Your task to perform on an android device: turn off location Image 0: 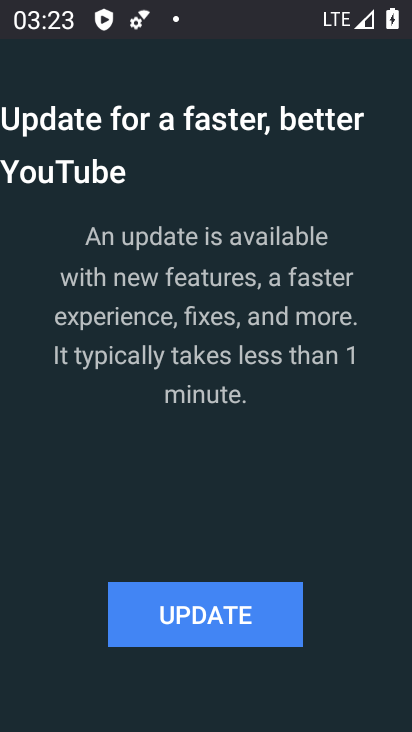
Step 0: press back button
Your task to perform on an android device: turn off location Image 1: 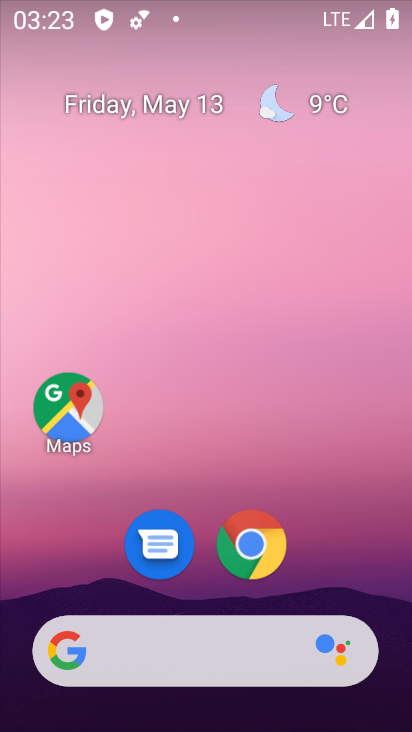
Step 1: drag from (316, 501) to (264, 42)
Your task to perform on an android device: turn off location Image 2: 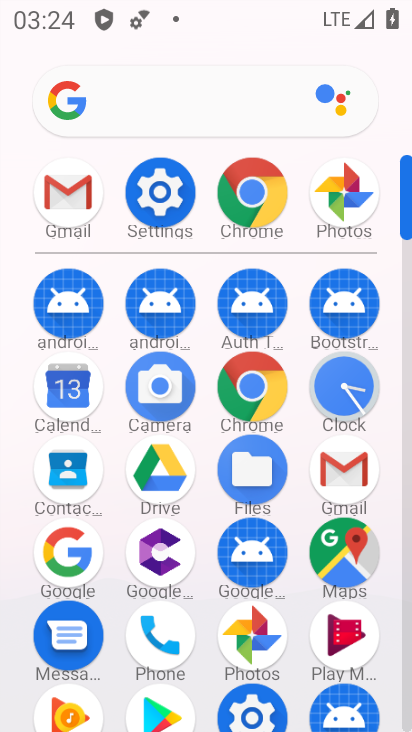
Step 2: click (157, 189)
Your task to perform on an android device: turn off location Image 3: 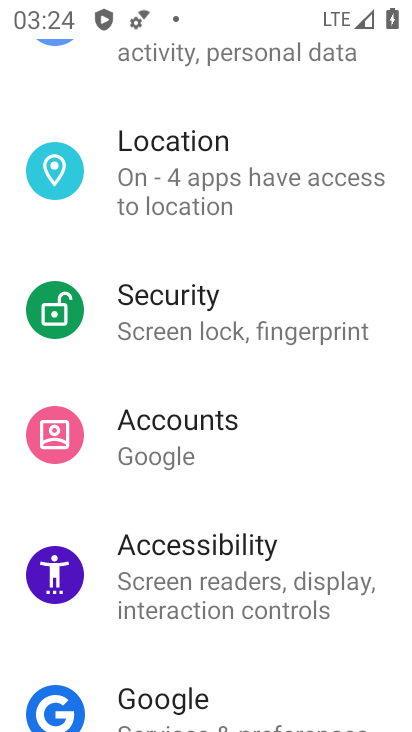
Step 3: click (255, 159)
Your task to perform on an android device: turn off location Image 4: 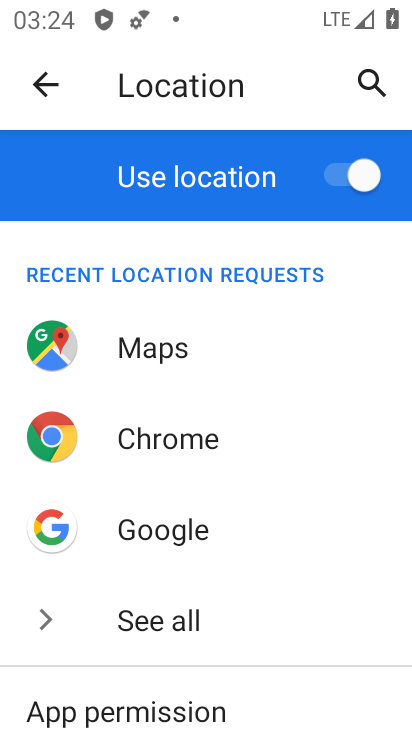
Step 4: click (342, 168)
Your task to perform on an android device: turn off location Image 5: 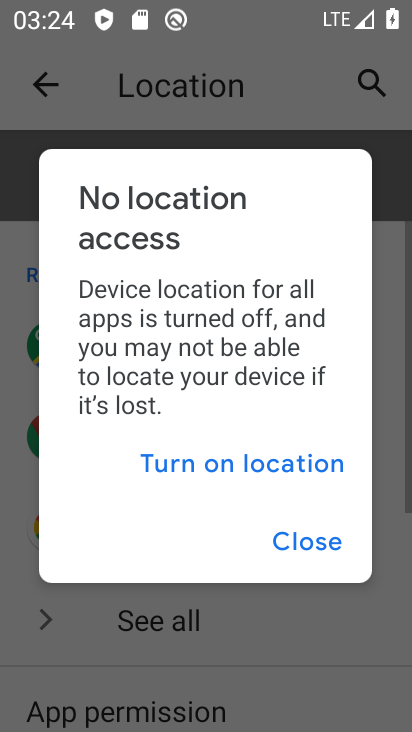
Step 5: task complete